Your task to perform on an android device: Open maps Image 0: 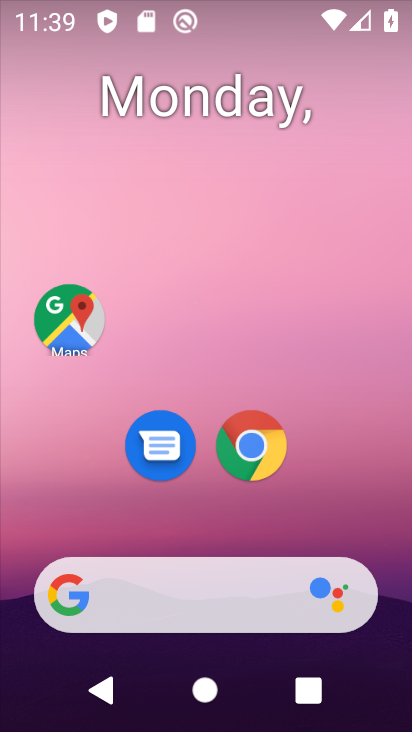
Step 0: click (73, 330)
Your task to perform on an android device: Open maps Image 1: 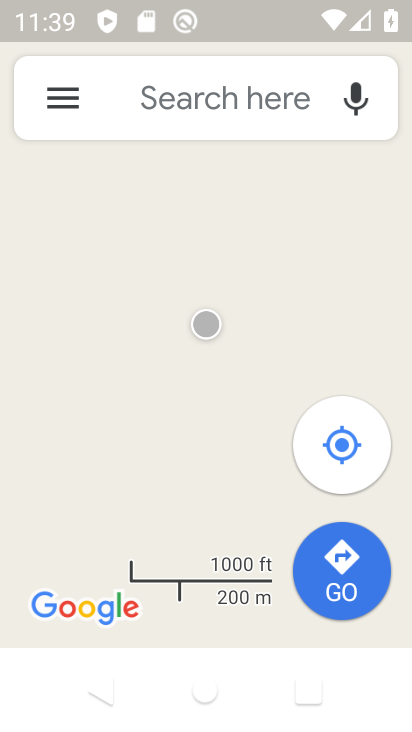
Step 1: task complete